Your task to perform on an android device: Search for sushi restaurants on Maps Image 0: 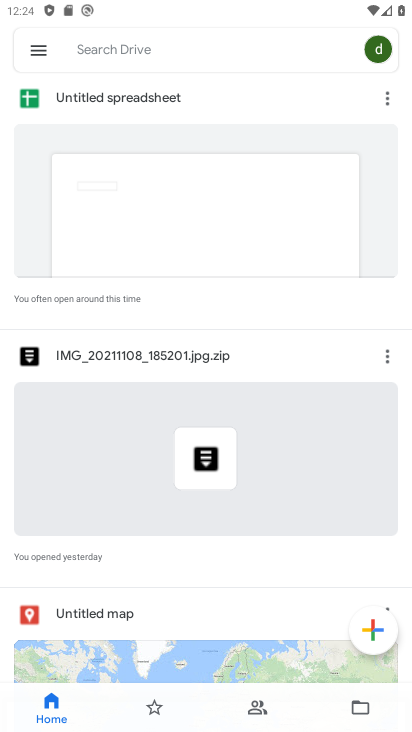
Step 0: press home button
Your task to perform on an android device: Search for sushi restaurants on Maps Image 1: 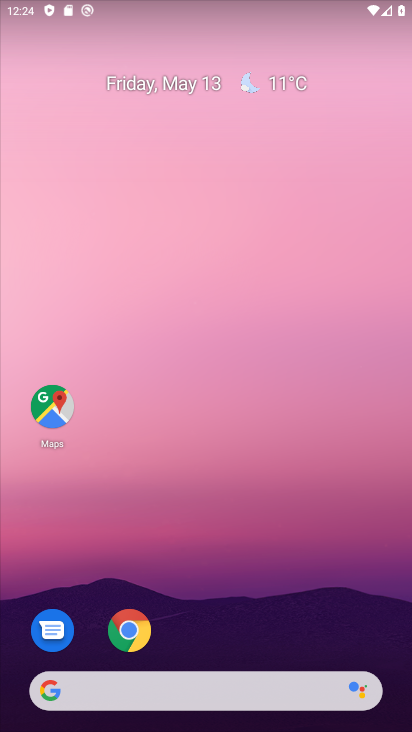
Step 1: click (48, 410)
Your task to perform on an android device: Search for sushi restaurants on Maps Image 2: 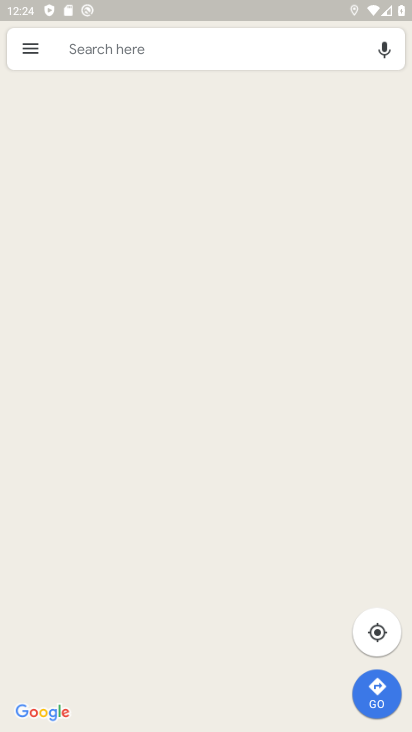
Step 2: click (95, 52)
Your task to perform on an android device: Search for sushi restaurants on Maps Image 3: 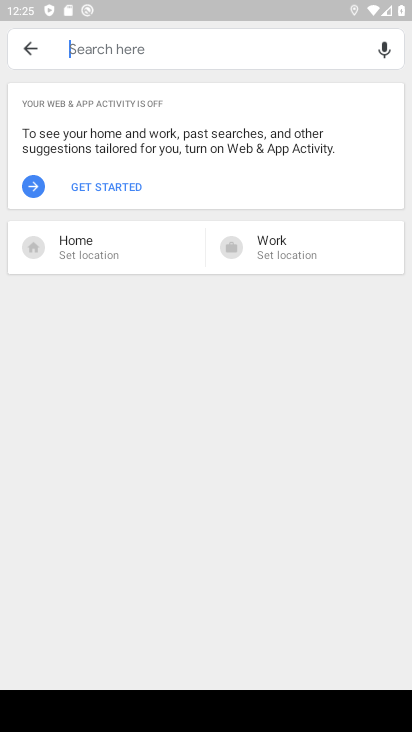
Step 3: type "sushi restaurant"
Your task to perform on an android device: Search for sushi restaurants on Maps Image 4: 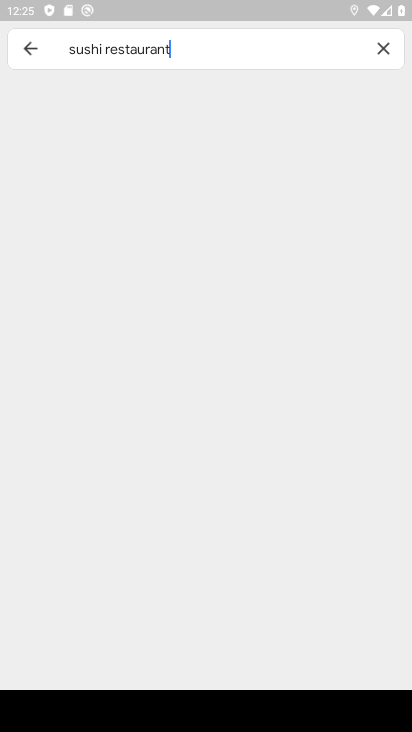
Step 4: drag from (186, 158) to (173, 394)
Your task to perform on an android device: Search for sushi restaurants on Maps Image 5: 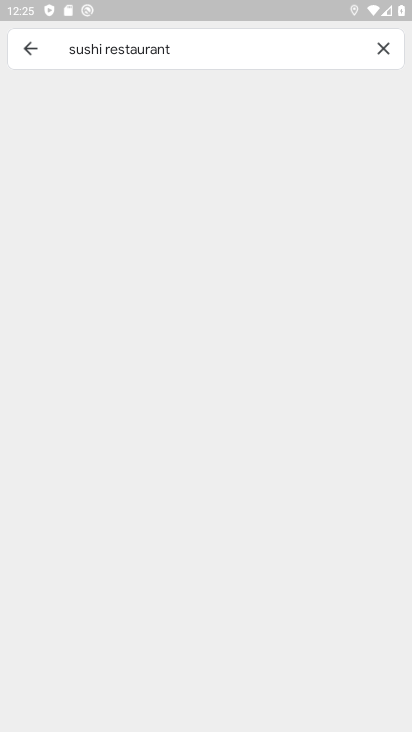
Step 5: click (385, 49)
Your task to perform on an android device: Search for sushi restaurants on Maps Image 6: 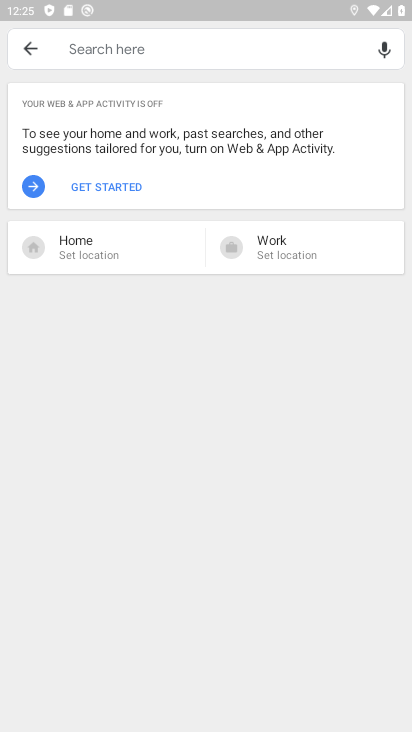
Step 6: drag from (235, 403) to (227, 501)
Your task to perform on an android device: Search for sushi restaurants on Maps Image 7: 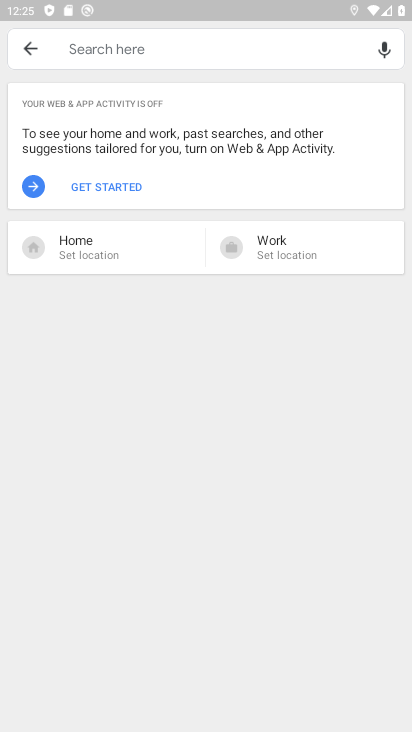
Step 7: click (27, 42)
Your task to perform on an android device: Search for sushi restaurants on Maps Image 8: 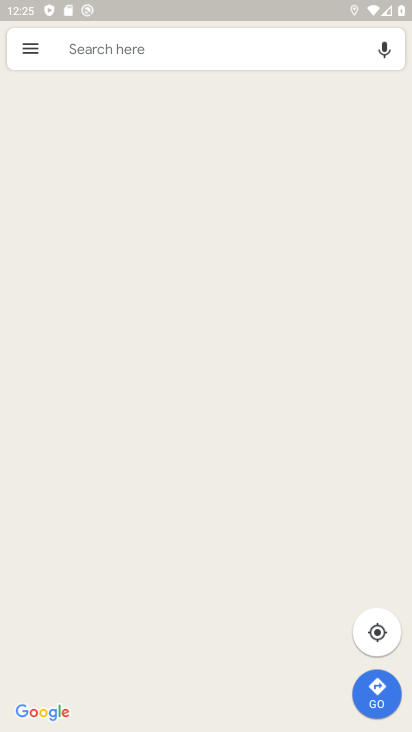
Step 8: drag from (160, 274) to (191, 406)
Your task to perform on an android device: Search for sushi restaurants on Maps Image 9: 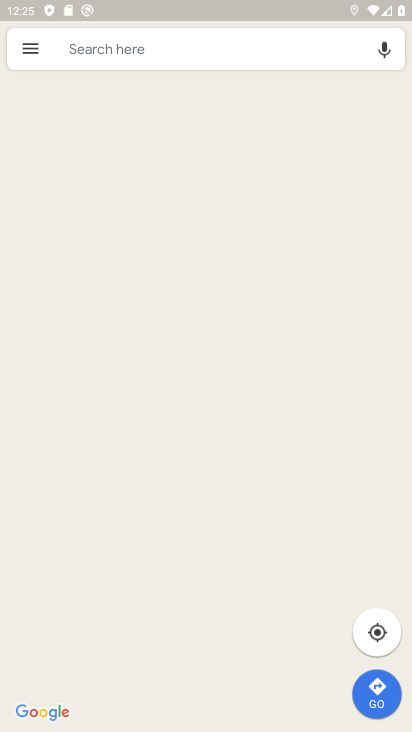
Step 9: click (135, 47)
Your task to perform on an android device: Search for sushi restaurants on Maps Image 10: 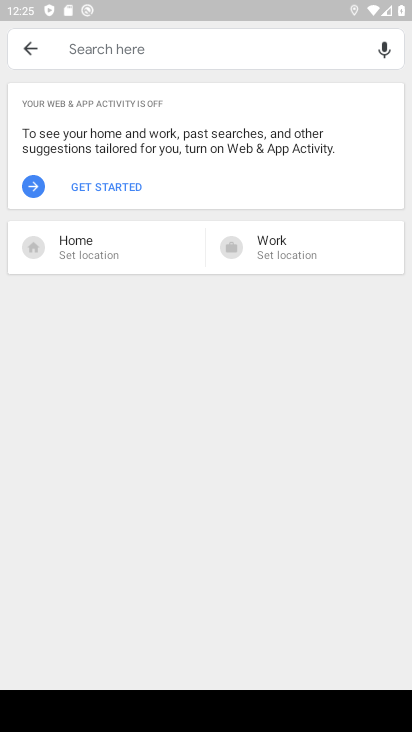
Step 10: type "sushi restaurant"
Your task to perform on an android device: Search for sushi restaurants on Maps Image 11: 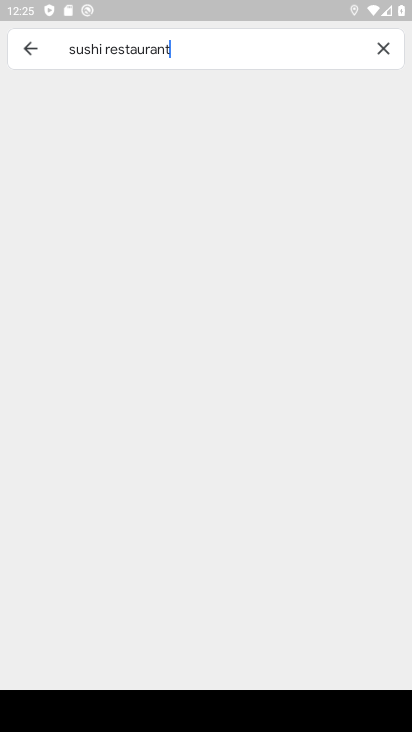
Step 11: click (180, 49)
Your task to perform on an android device: Search for sushi restaurants on Maps Image 12: 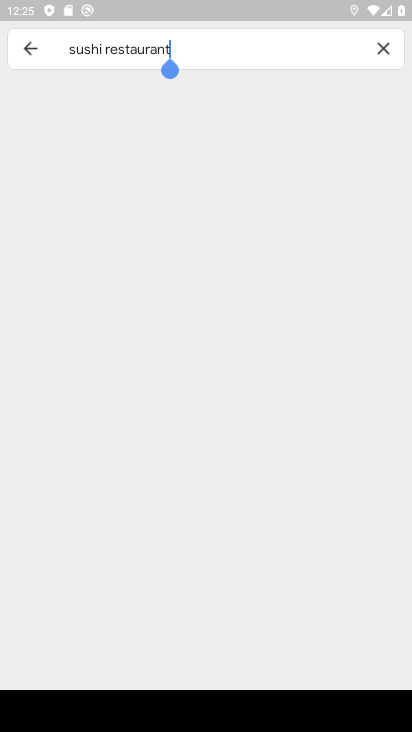
Step 12: task complete